Your task to perform on an android device: Clear the shopping cart on ebay. Add "beats solo 3" to the cart on ebay, then select checkout. Image 0: 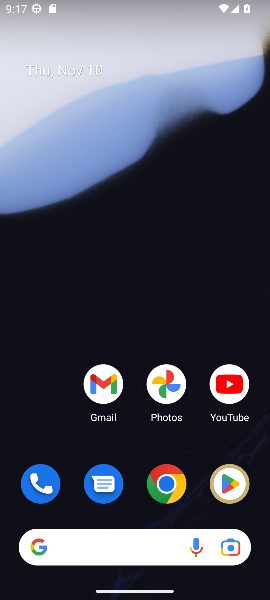
Step 0: click (169, 493)
Your task to perform on an android device: Clear the shopping cart on ebay. Add "beats solo 3" to the cart on ebay, then select checkout. Image 1: 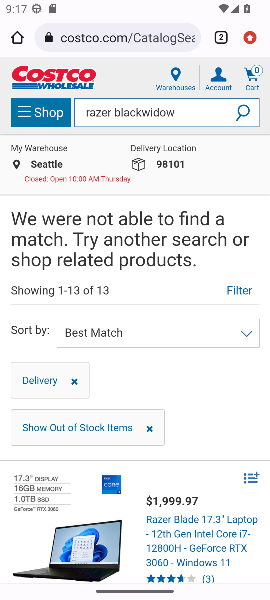
Step 1: click (103, 41)
Your task to perform on an android device: Clear the shopping cart on ebay. Add "beats solo 3" to the cart on ebay, then select checkout. Image 2: 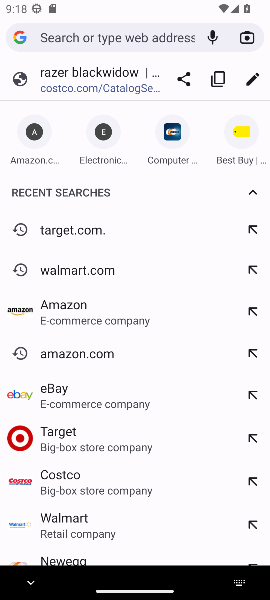
Step 2: type "ebay.com"
Your task to perform on an android device: Clear the shopping cart on ebay. Add "beats solo 3" to the cart on ebay, then select checkout. Image 3: 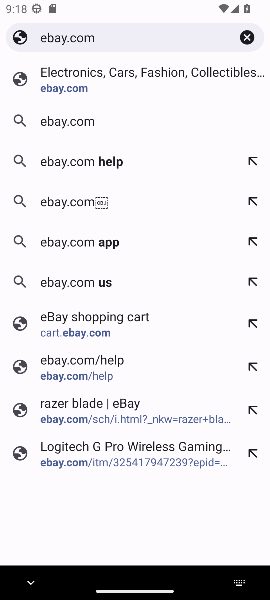
Step 3: click (59, 92)
Your task to perform on an android device: Clear the shopping cart on ebay. Add "beats solo 3" to the cart on ebay, then select checkout. Image 4: 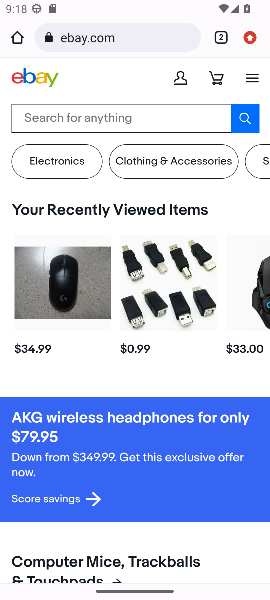
Step 4: click (218, 84)
Your task to perform on an android device: Clear the shopping cart on ebay. Add "beats solo 3" to the cart on ebay, then select checkout. Image 5: 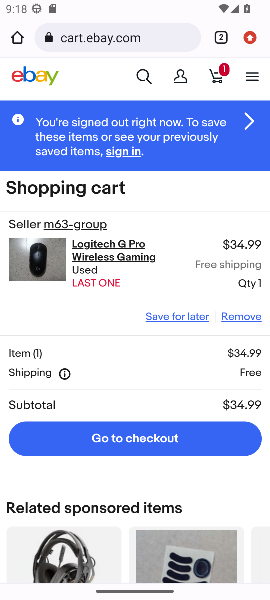
Step 5: click (244, 318)
Your task to perform on an android device: Clear the shopping cart on ebay. Add "beats solo 3" to the cart on ebay, then select checkout. Image 6: 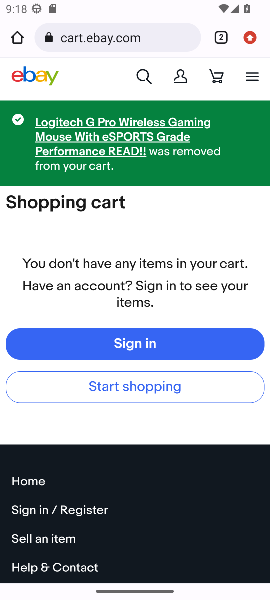
Step 6: click (140, 80)
Your task to perform on an android device: Clear the shopping cart on ebay. Add "beats solo 3" to the cart on ebay, then select checkout. Image 7: 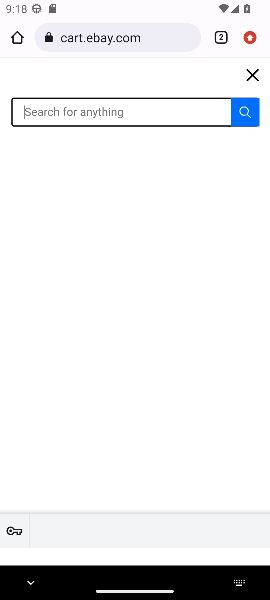
Step 7: type "beats solo 3"
Your task to perform on an android device: Clear the shopping cart on ebay. Add "beats solo 3" to the cart on ebay, then select checkout. Image 8: 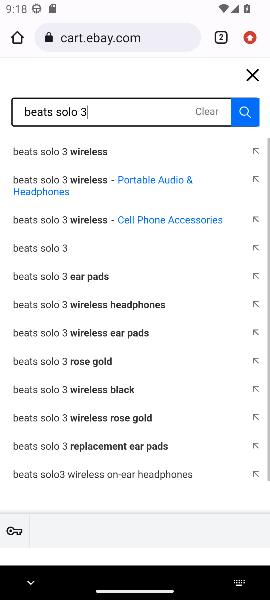
Step 8: click (47, 247)
Your task to perform on an android device: Clear the shopping cart on ebay. Add "beats solo 3" to the cart on ebay, then select checkout. Image 9: 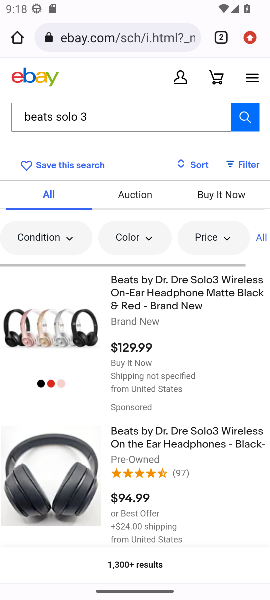
Step 9: click (53, 335)
Your task to perform on an android device: Clear the shopping cart on ebay. Add "beats solo 3" to the cart on ebay, then select checkout. Image 10: 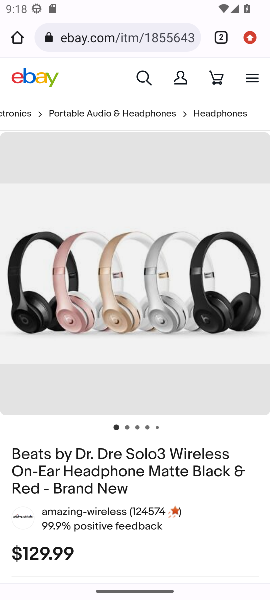
Step 10: drag from (122, 459) to (80, 223)
Your task to perform on an android device: Clear the shopping cart on ebay. Add "beats solo 3" to the cart on ebay, then select checkout. Image 11: 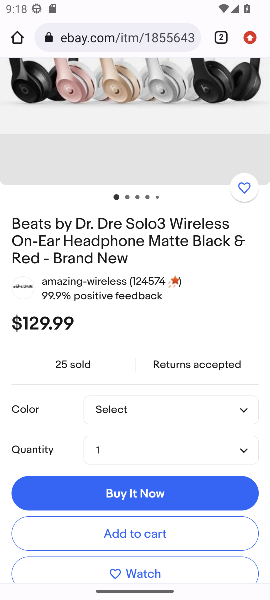
Step 11: click (112, 534)
Your task to perform on an android device: Clear the shopping cart on ebay. Add "beats solo 3" to the cart on ebay, then select checkout. Image 12: 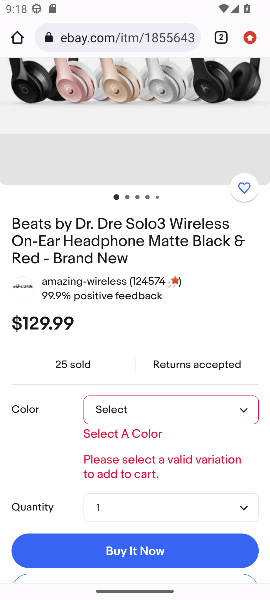
Step 12: click (243, 409)
Your task to perform on an android device: Clear the shopping cart on ebay. Add "beats solo 3" to the cart on ebay, then select checkout. Image 13: 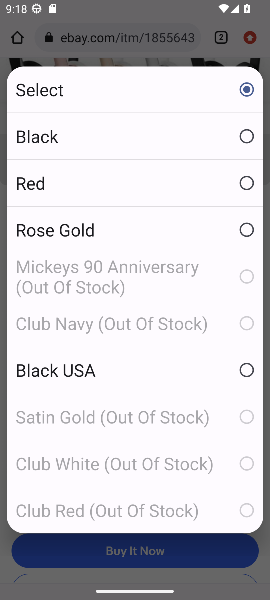
Step 13: click (49, 239)
Your task to perform on an android device: Clear the shopping cart on ebay. Add "beats solo 3" to the cart on ebay, then select checkout. Image 14: 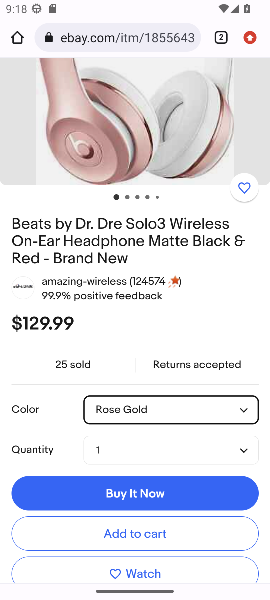
Step 14: click (148, 533)
Your task to perform on an android device: Clear the shopping cart on ebay. Add "beats solo 3" to the cart on ebay, then select checkout. Image 15: 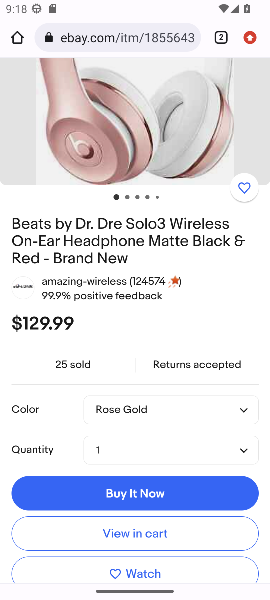
Step 15: click (148, 533)
Your task to perform on an android device: Clear the shopping cart on ebay. Add "beats solo 3" to the cart on ebay, then select checkout. Image 16: 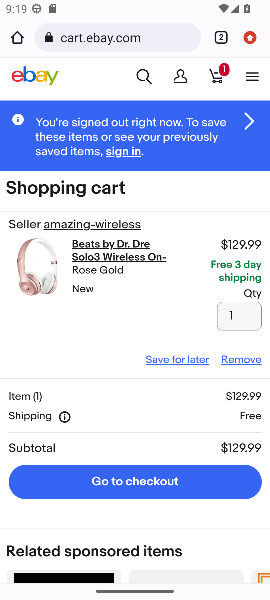
Step 16: click (126, 486)
Your task to perform on an android device: Clear the shopping cart on ebay. Add "beats solo 3" to the cart on ebay, then select checkout. Image 17: 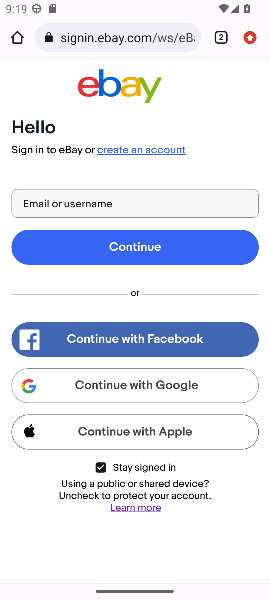
Step 17: task complete